Your task to perform on an android device: Go to internet settings Image 0: 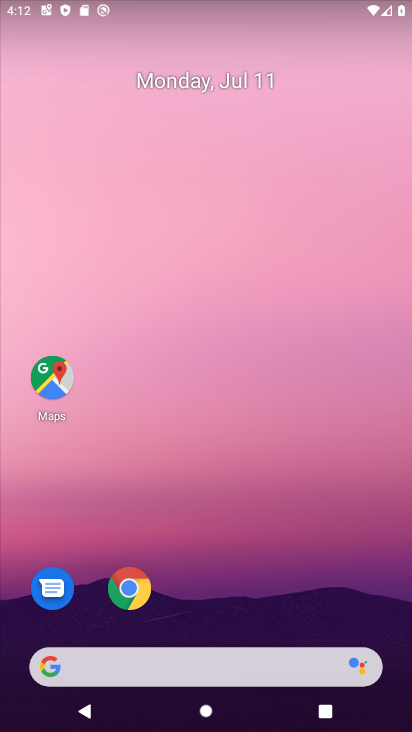
Step 0: drag from (360, 620) to (358, 215)
Your task to perform on an android device: Go to internet settings Image 1: 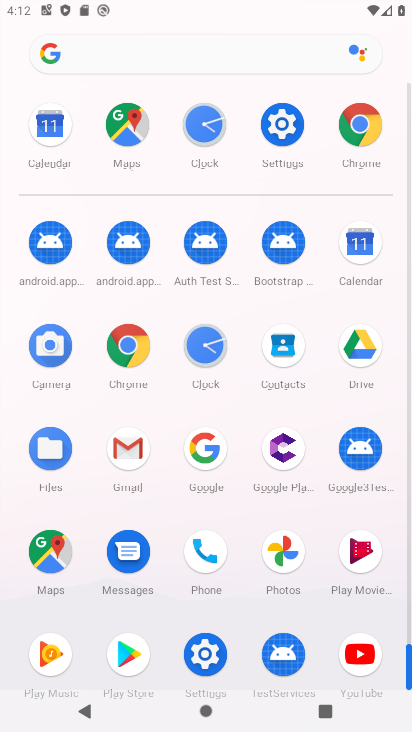
Step 1: click (271, 137)
Your task to perform on an android device: Go to internet settings Image 2: 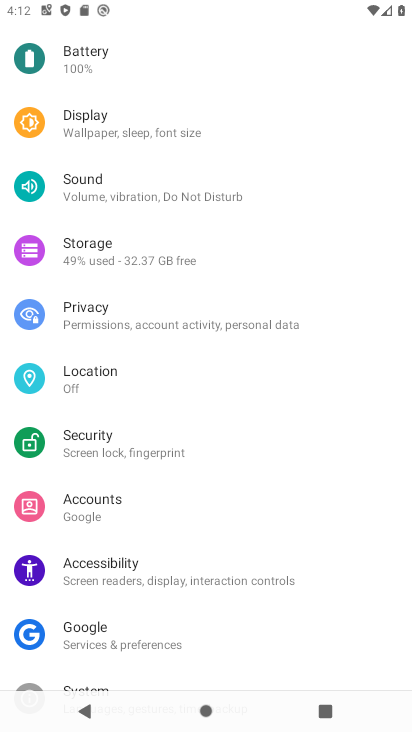
Step 2: drag from (340, 483) to (346, 373)
Your task to perform on an android device: Go to internet settings Image 3: 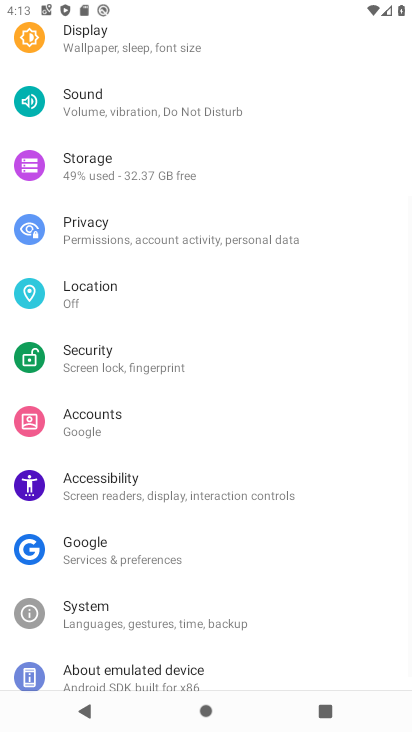
Step 3: drag from (342, 513) to (348, 373)
Your task to perform on an android device: Go to internet settings Image 4: 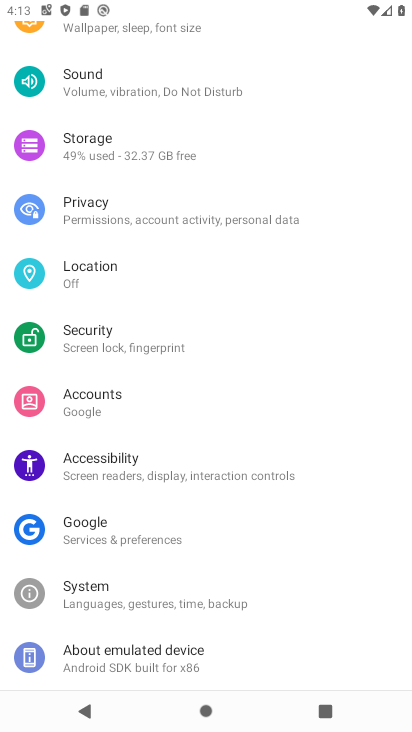
Step 4: drag from (320, 319) to (312, 440)
Your task to perform on an android device: Go to internet settings Image 5: 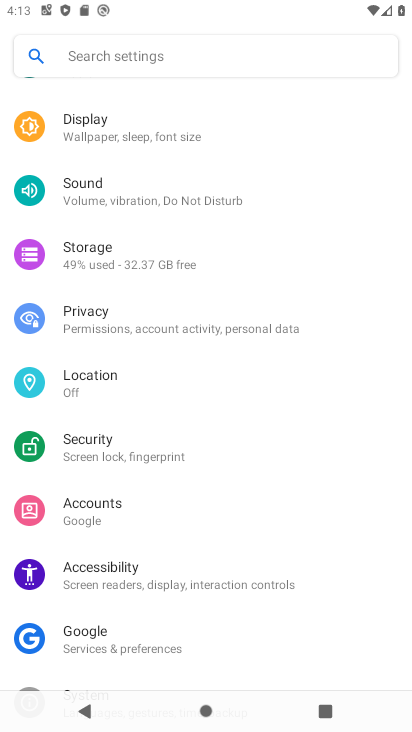
Step 5: drag from (335, 300) to (323, 413)
Your task to perform on an android device: Go to internet settings Image 6: 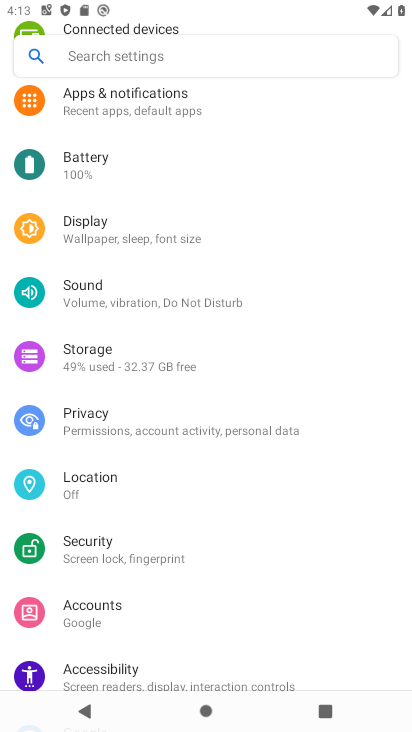
Step 6: drag from (314, 220) to (331, 369)
Your task to perform on an android device: Go to internet settings Image 7: 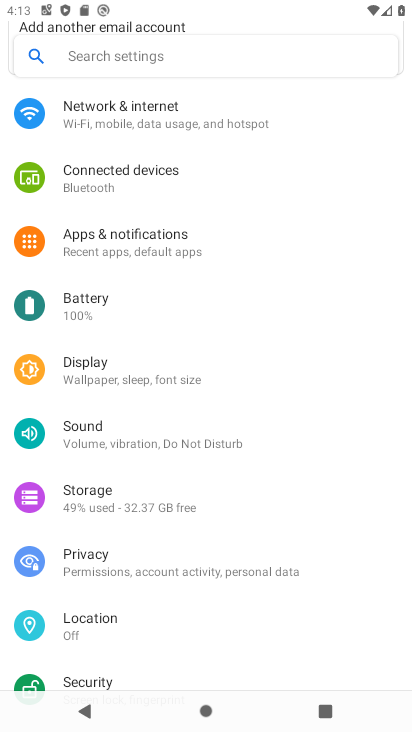
Step 7: drag from (328, 259) to (328, 361)
Your task to perform on an android device: Go to internet settings Image 8: 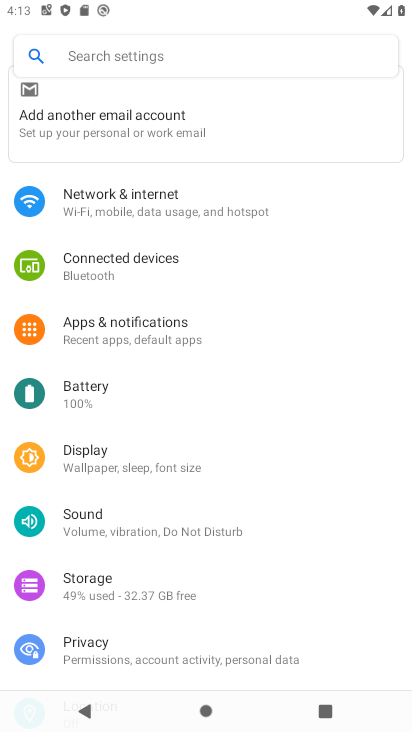
Step 8: drag from (330, 245) to (325, 387)
Your task to perform on an android device: Go to internet settings Image 9: 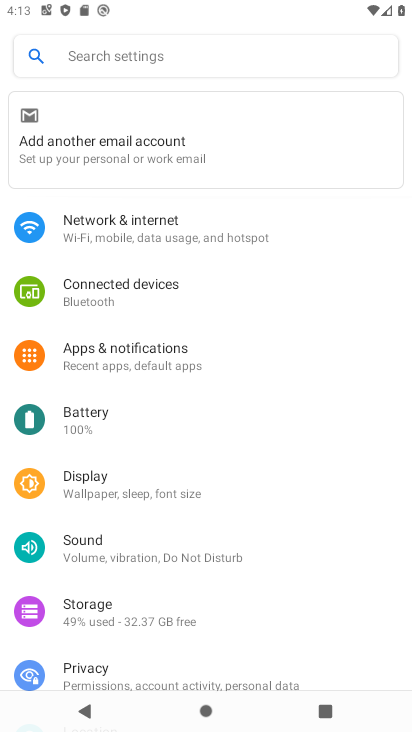
Step 9: click (255, 228)
Your task to perform on an android device: Go to internet settings Image 10: 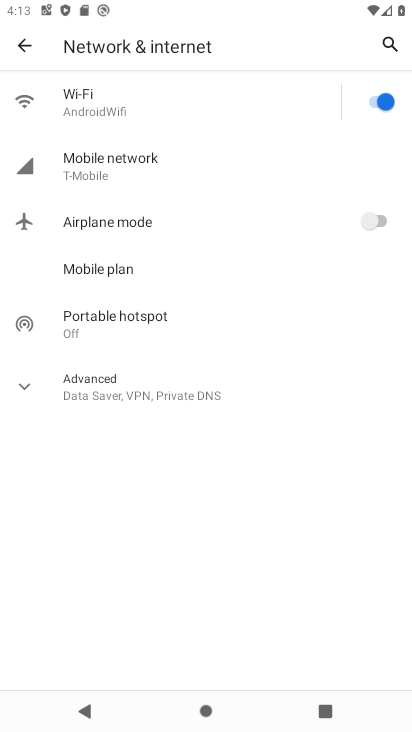
Step 10: task complete